Your task to perform on an android device: star an email in the gmail app Image 0: 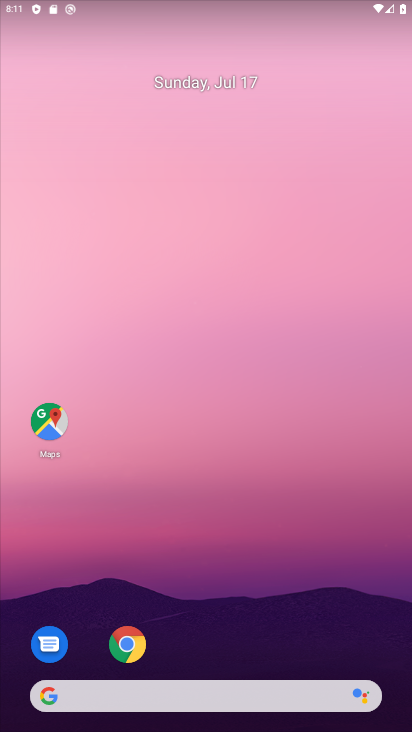
Step 0: drag from (206, 396) to (199, 120)
Your task to perform on an android device: star an email in the gmail app Image 1: 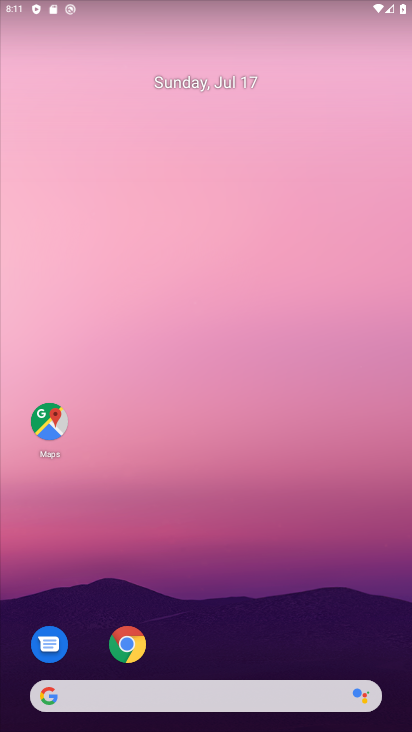
Step 1: drag from (255, 697) to (238, 149)
Your task to perform on an android device: star an email in the gmail app Image 2: 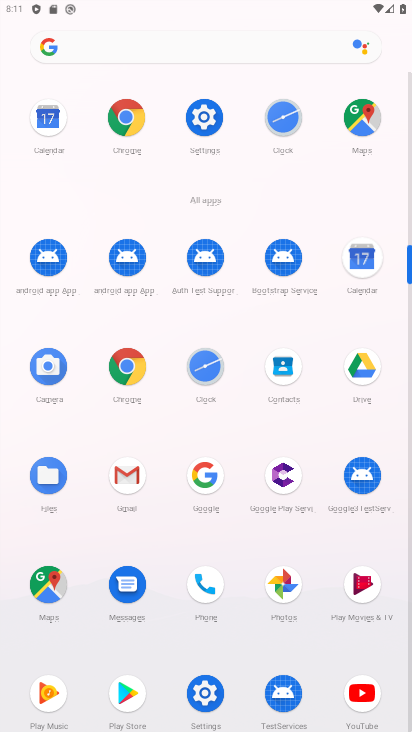
Step 2: click (124, 478)
Your task to perform on an android device: star an email in the gmail app Image 3: 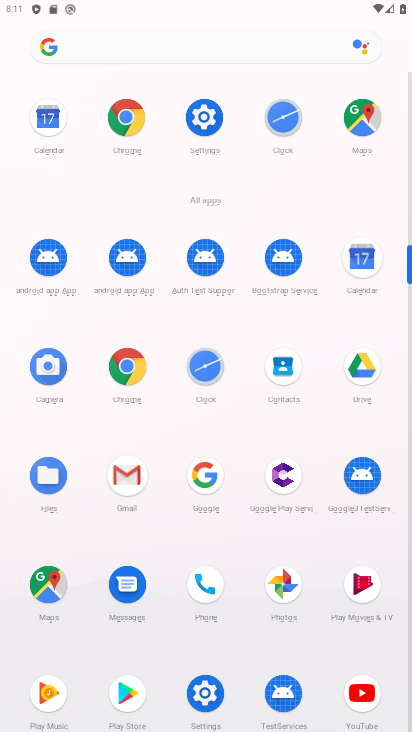
Step 3: click (134, 475)
Your task to perform on an android device: star an email in the gmail app Image 4: 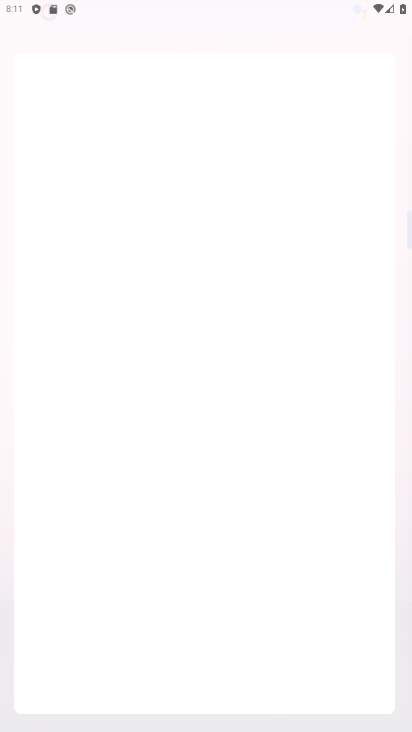
Step 4: click (138, 473)
Your task to perform on an android device: star an email in the gmail app Image 5: 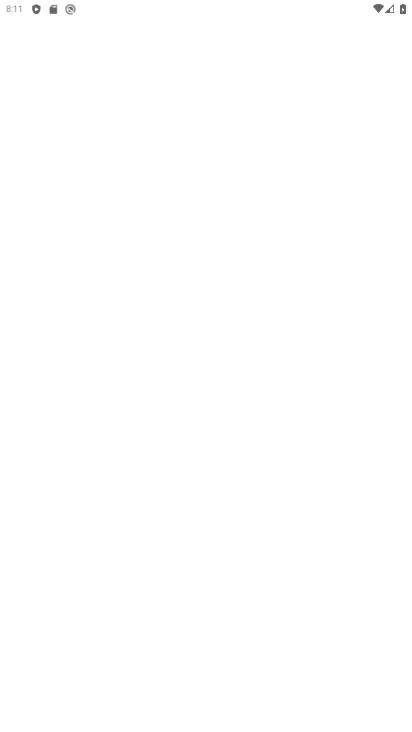
Step 5: click (139, 473)
Your task to perform on an android device: star an email in the gmail app Image 6: 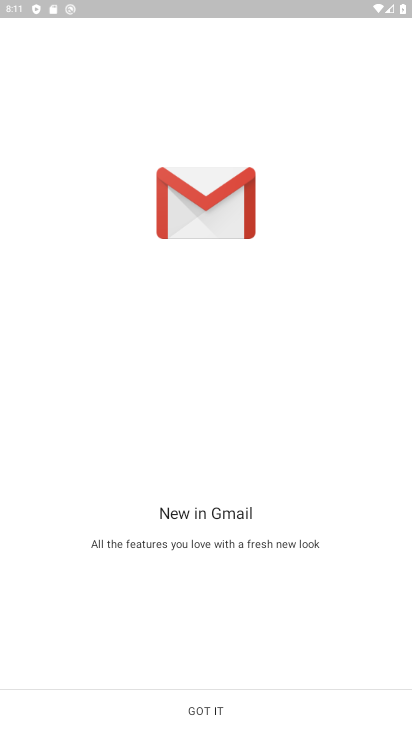
Step 6: click (224, 704)
Your task to perform on an android device: star an email in the gmail app Image 7: 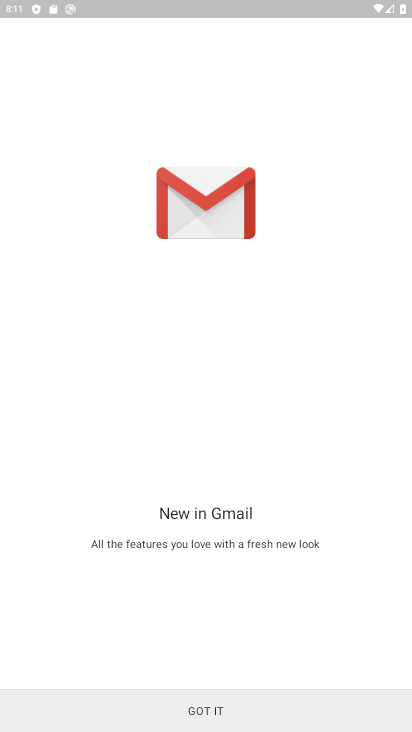
Step 7: click (224, 705)
Your task to perform on an android device: star an email in the gmail app Image 8: 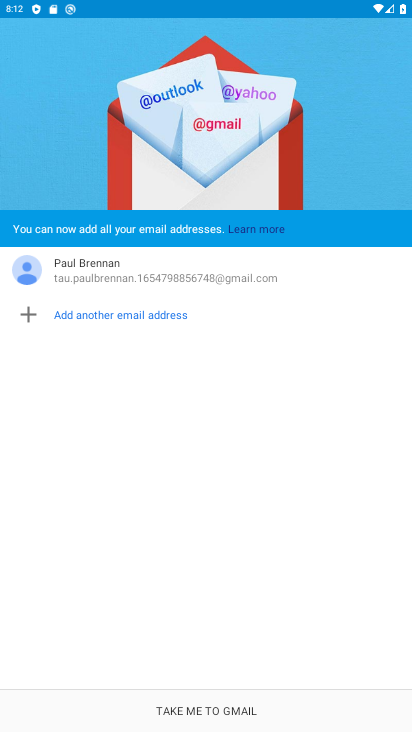
Step 8: click (220, 709)
Your task to perform on an android device: star an email in the gmail app Image 9: 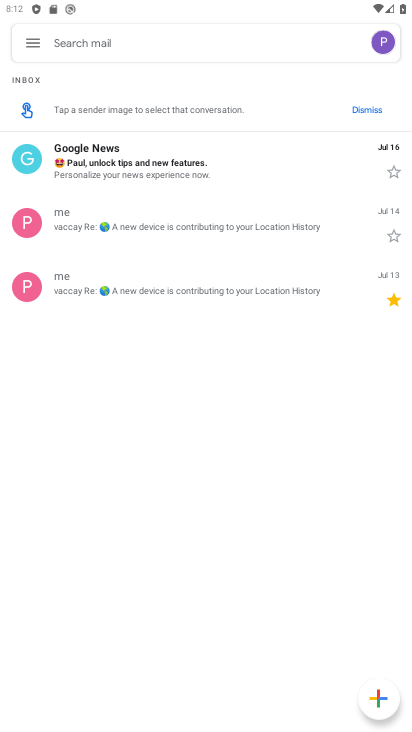
Step 9: click (109, 169)
Your task to perform on an android device: star an email in the gmail app Image 10: 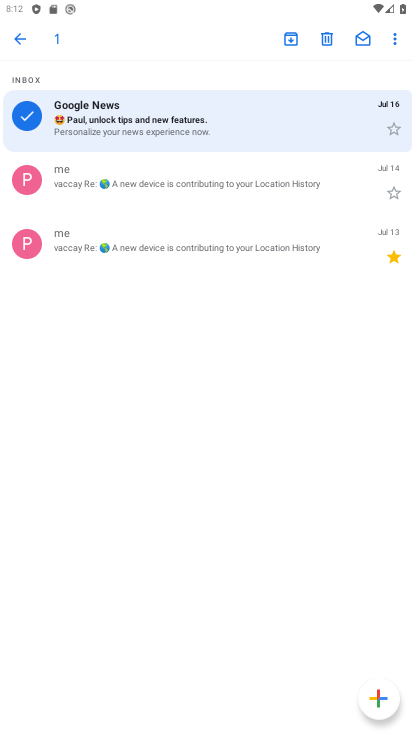
Step 10: click (390, 130)
Your task to perform on an android device: star an email in the gmail app Image 11: 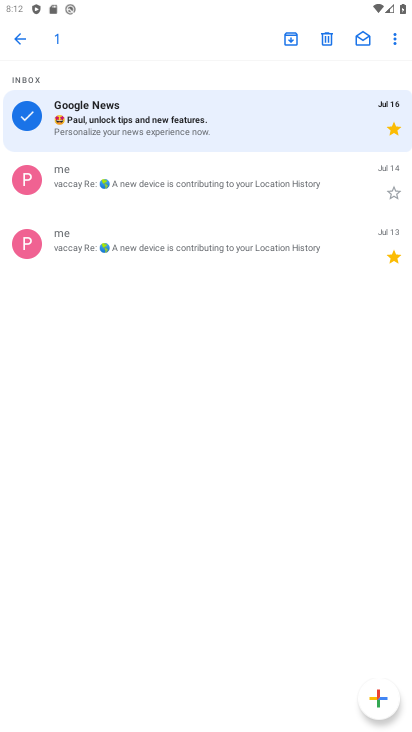
Step 11: task complete